Your task to perform on an android device: Go to privacy settings Image 0: 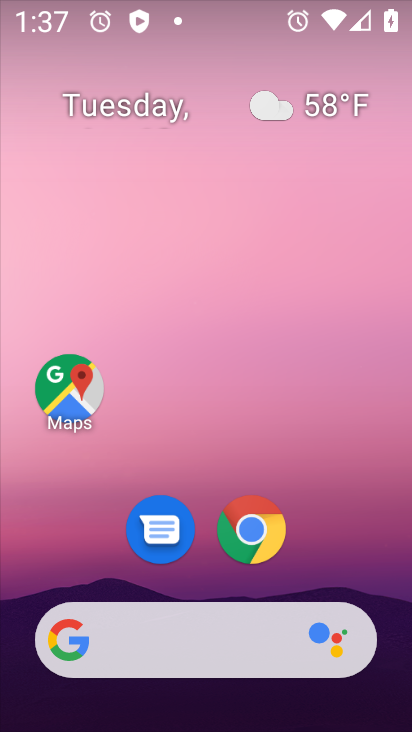
Step 0: drag from (243, 602) to (287, 105)
Your task to perform on an android device: Go to privacy settings Image 1: 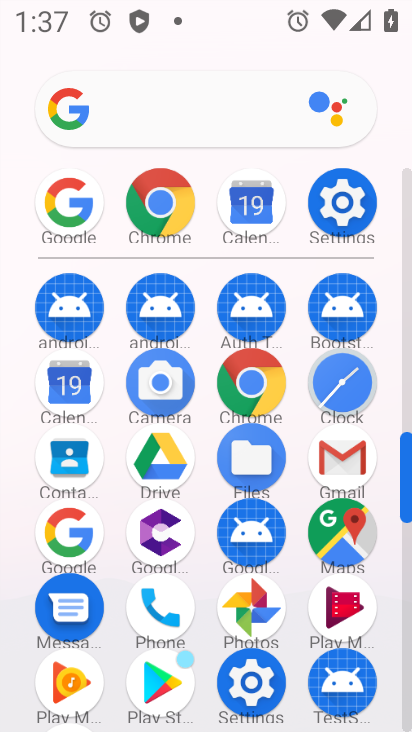
Step 1: click (345, 218)
Your task to perform on an android device: Go to privacy settings Image 2: 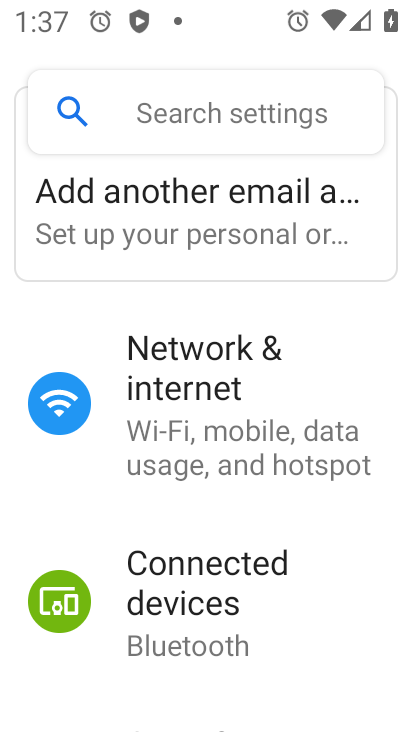
Step 2: drag from (192, 584) to (242, 205)
Your task to perform on an android device: Go to privacy settings Image 3: 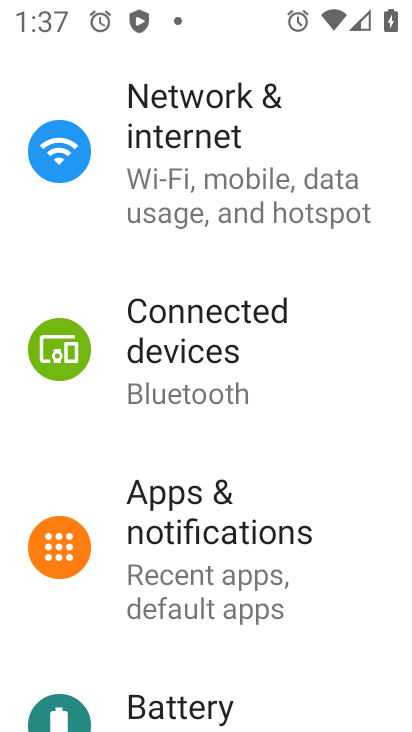
Step 3: drag from (265, 534) to (320, 113)
Your task to perform on an android device: Go to privacy settings Image 4: 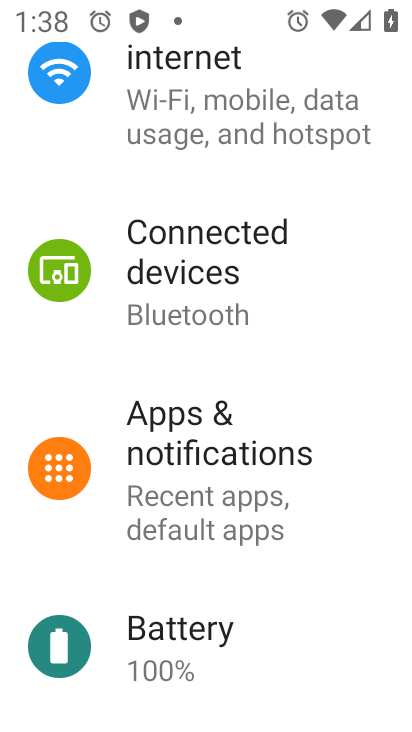
Step 4: drag from (272, 358) to (313, 95)
Your task to perform on an android device: Go to privacy settings Image 5: 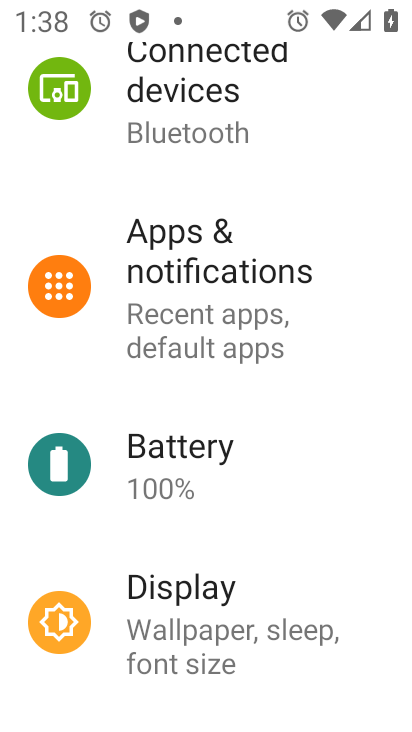
Step 5: drag from (223, 559) to (263, 198)
Your task to perform on an android device: Go to privacy settings Image 6: 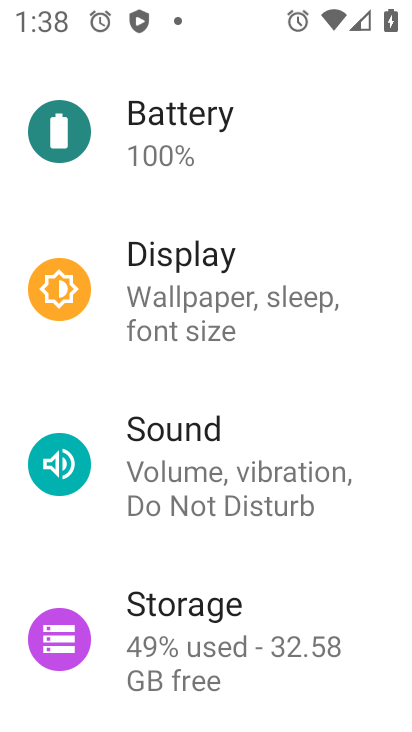
Step 6: drag from (217, 569) to (212, 77)
Your task to perform on an android device: Go to privacy settings Image 7: 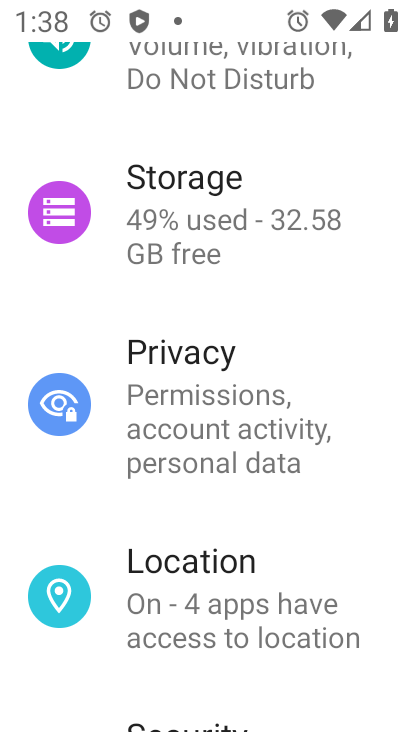
Step 7: click (223, 453)
Your task to perform on an android device: Go to privacy settings Image 8: 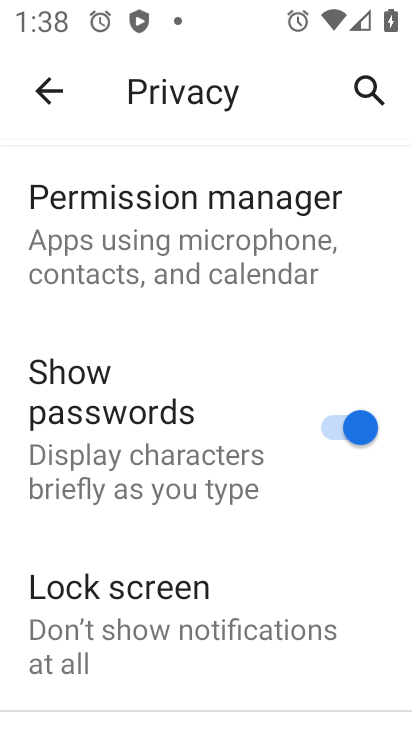
Step 8: task complete